Your task to perform on an android device: Is it going to rain tomorrow? Image 0: 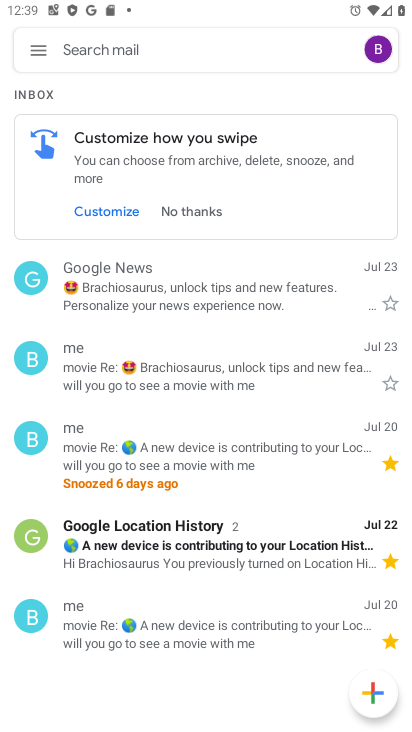
Step 0: press home button
Your task to perform on an android device: Is it going to rain tomorrow? Image 1: 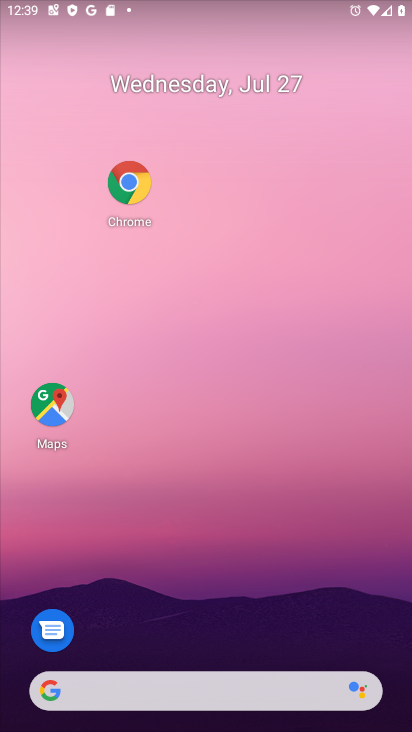
Step 1: click (211, 684)
Your task to perform on an android device: Is it going to rain tomorrow? Image 2: 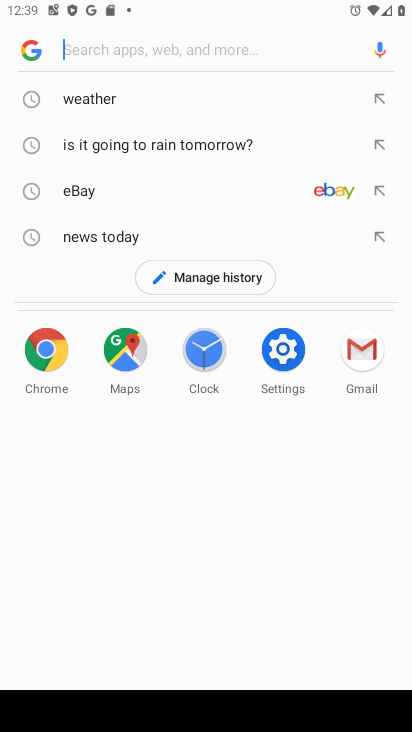
Step 2: click (215, 137)
Your task to perform on an android device: Is it going to rain tomorrow? Image 3: 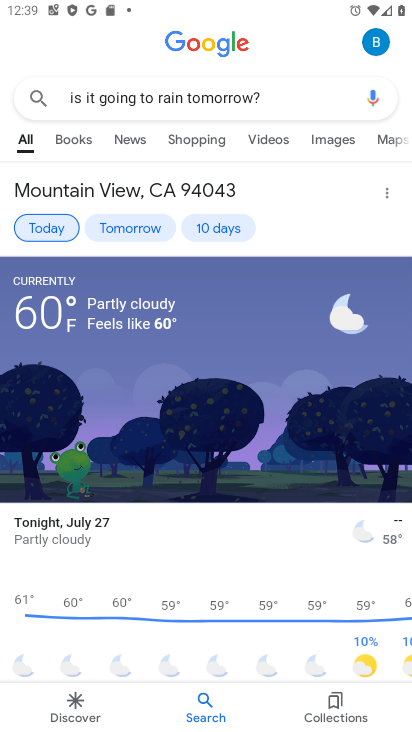
Step 3: task complete